Your task to perform on an android device: open app "Booking.com: Hotels and more" (install if not already installed) Image 0: 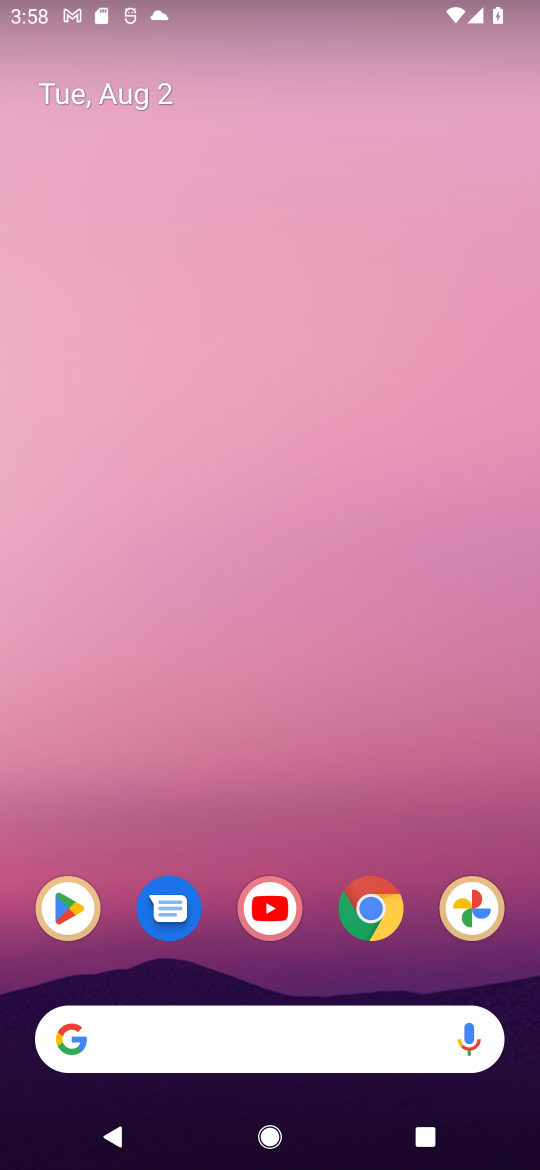
Step 0: press home button
Your task to perform on an android device: open app "Booking.com: Hotels and more" (install if not already installed) Image 1: 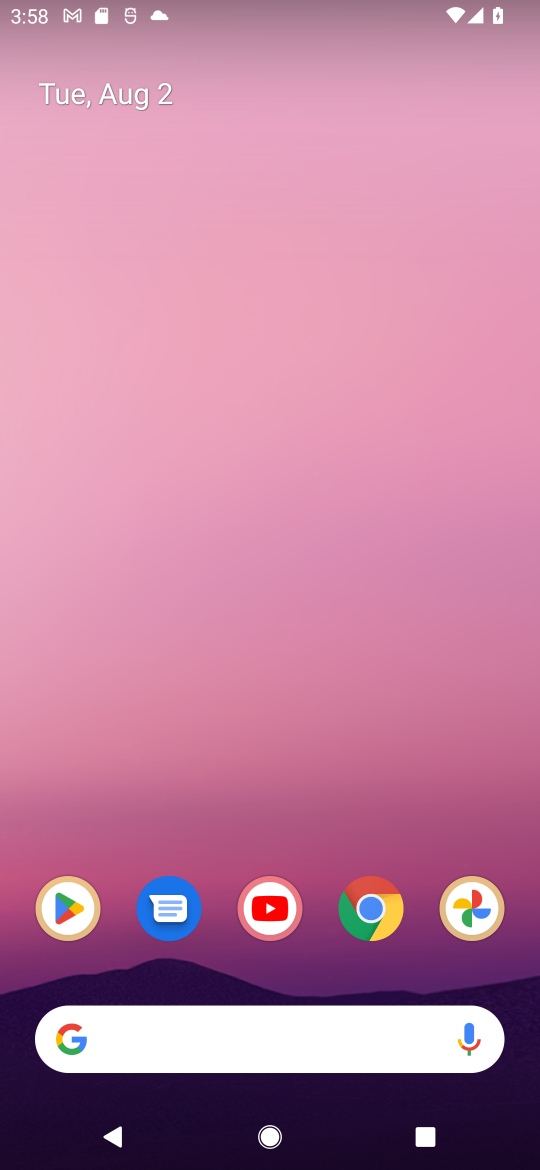
Step 1: click (61, 904)
Your task to perform on an android device: open app "Booking.com: Hotels and more" (install if not already installed) Image 2: 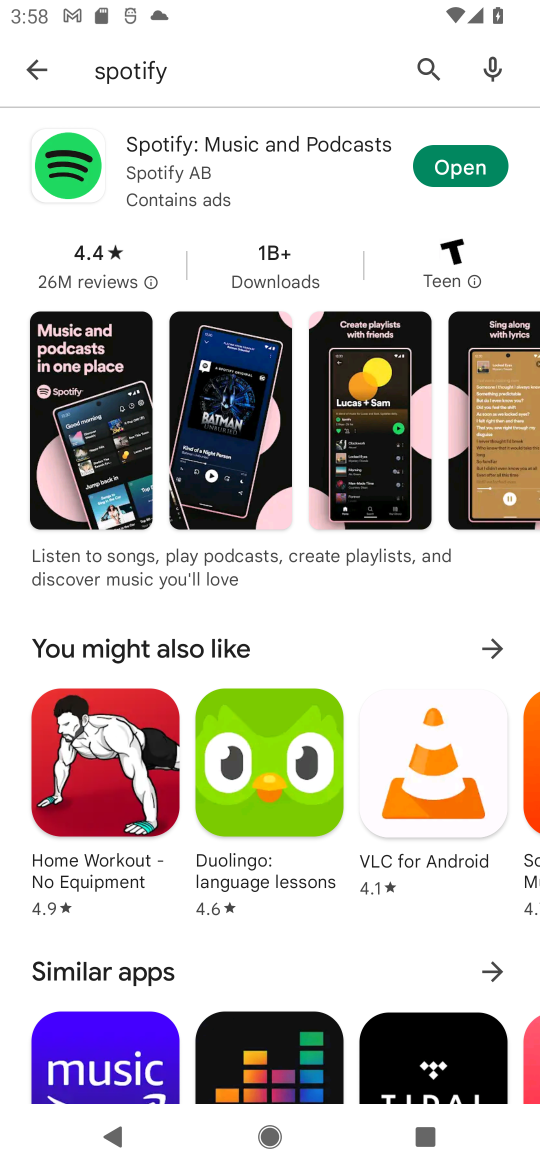
Step 2: click (425, 62)
Your task to perform on an android device: open app "Booking.com: Hotels and more" (install if not already installed) Image 3: 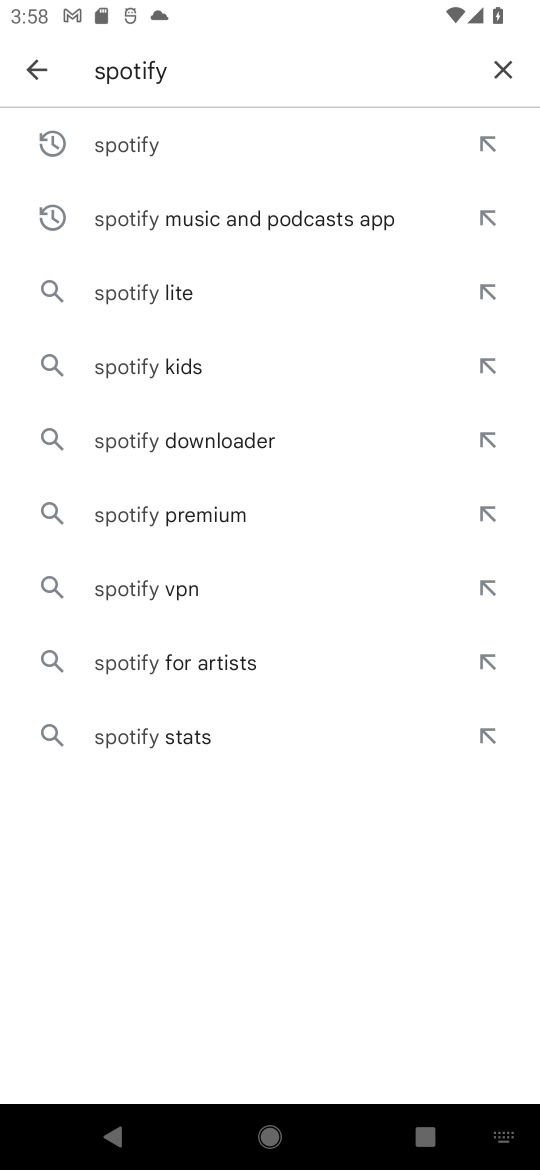
Step 3: click (503, 61)
Your task to perform on an android device: open app "Booking.com: Hotels and more" (install if not already installed) Image 4: 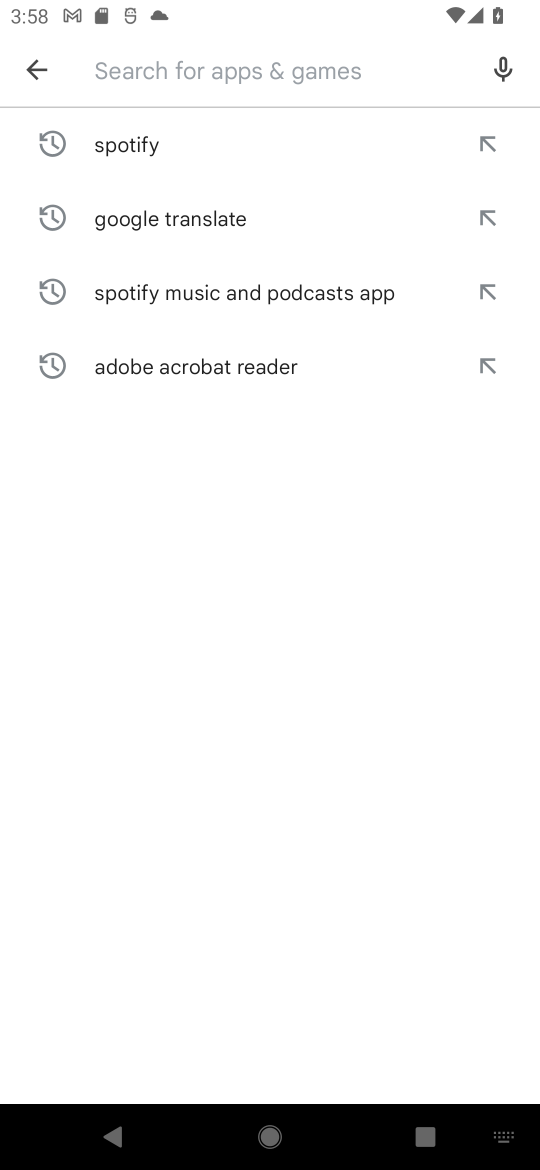
Step 4: type "Booking.com: Hotels and more"
Your task to perform on an android device: open app "Booking.com: Hotels and more" (install if not already installed) Image 5: 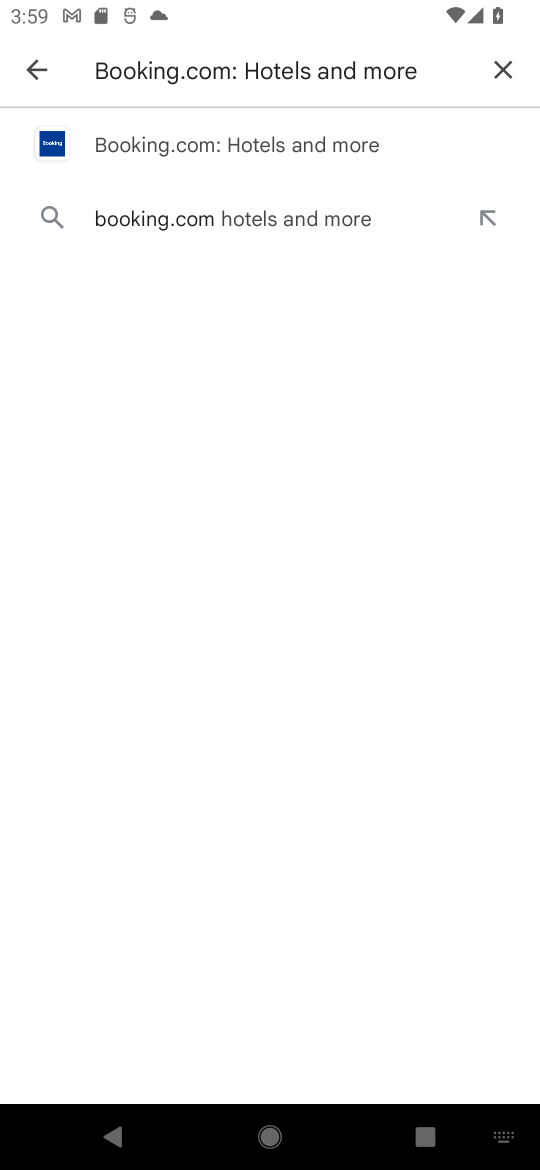
Step 5: click (317, 136)
Your task to perform on an android device: open app "Booking.com: Hotels and more" (install if not already installed) Image 6: 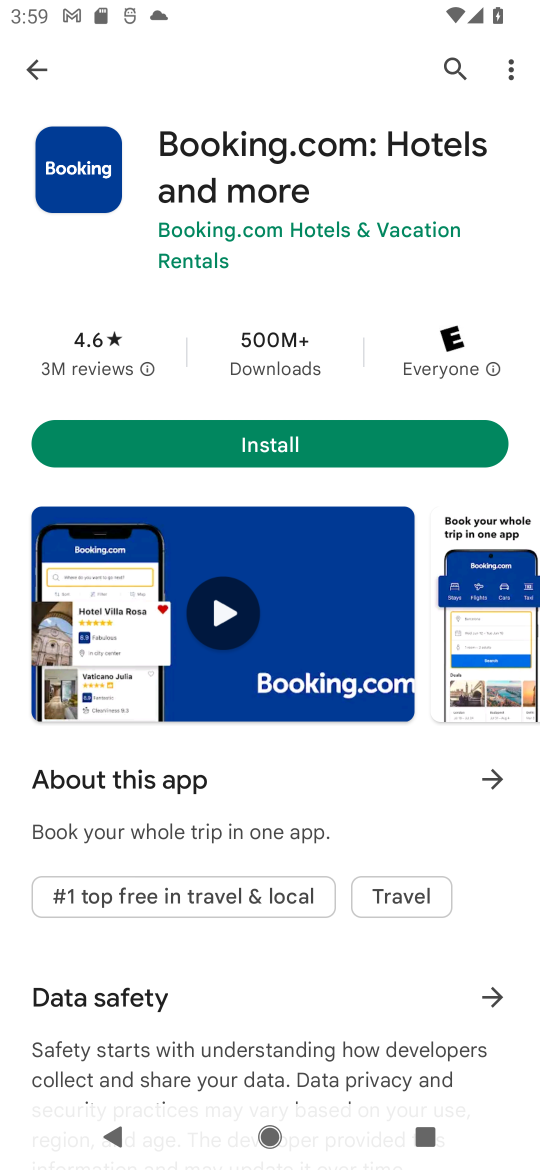
Step 6: click (265, 439)
Your task to perform on an android device: open app "Booking.com: Hotels and more" (install if not already installed) Image 7: 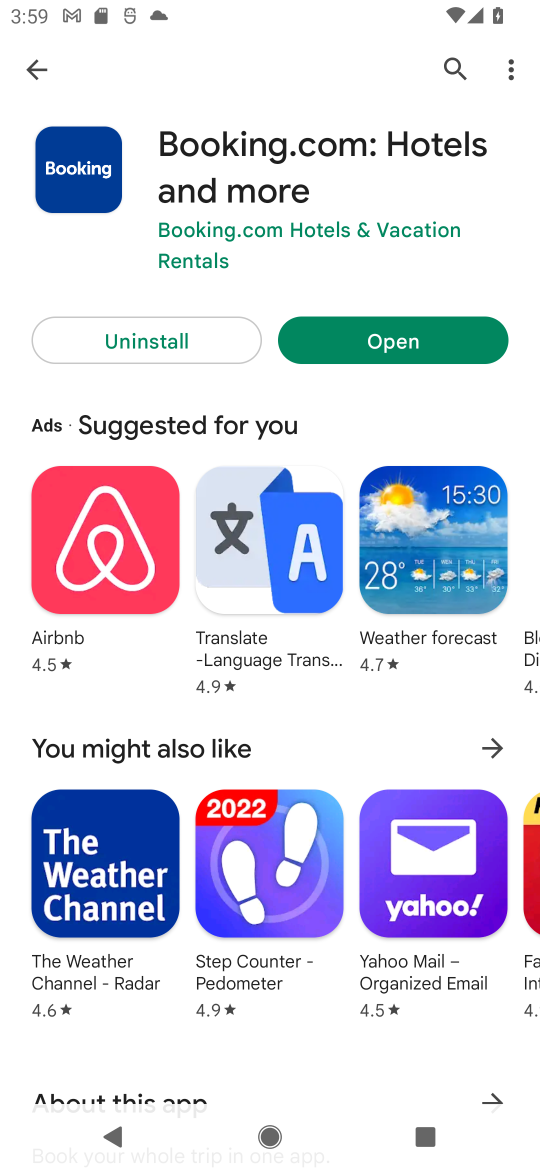
Step 7: click (396, 343)
Your task to perform on an android device: open app "Booking.com: Hotels and more" (install if not already installed) Image 8: 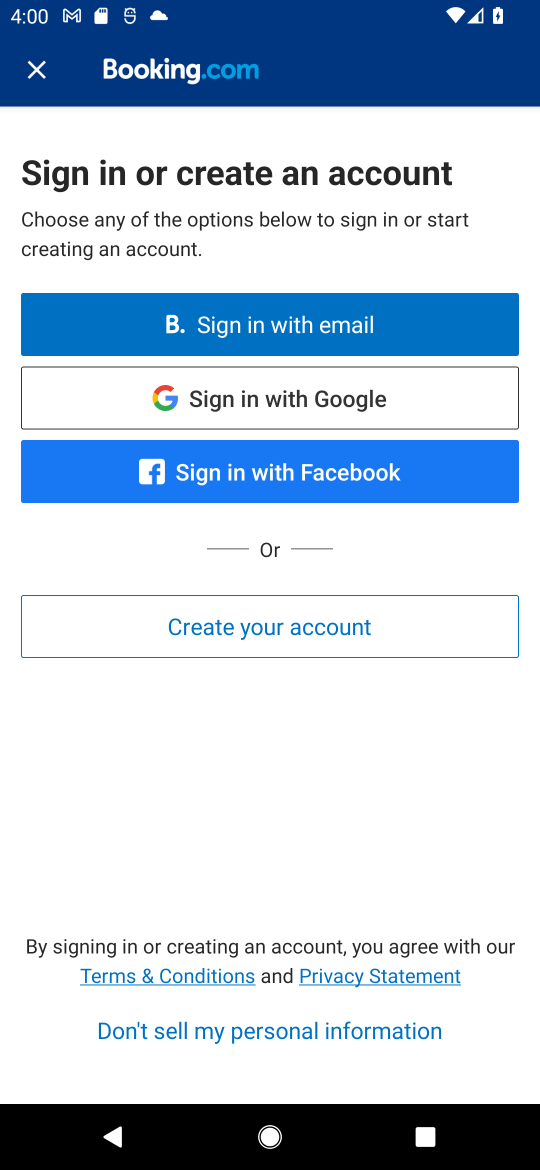
Step 8: click (136, 389)
Your task to perform on an android device: open app "Booking.com: Hotels and more" (install if not already installed) Image 9: 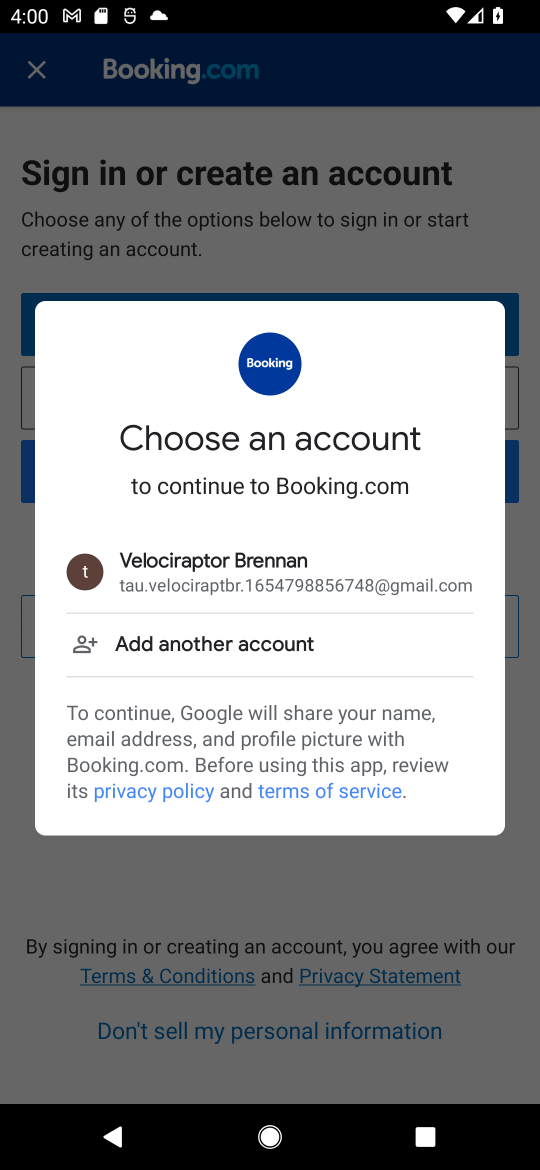
Step 9: click (169, 562)
Your task to perform on an android device: open app "Booking.com: Hotels and more" (install if not already installed) Image 10: 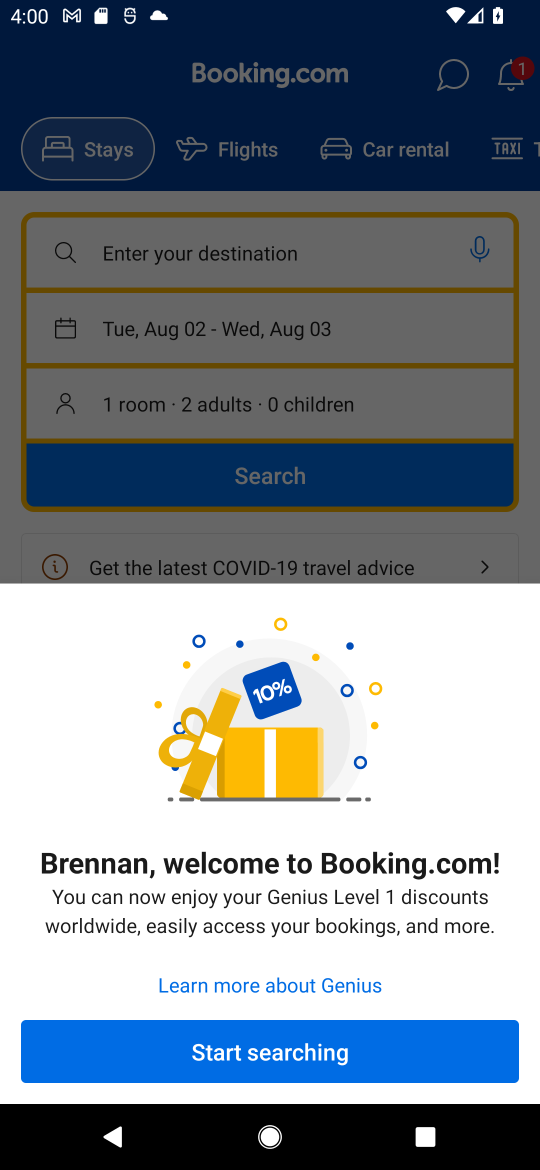
Step 10: click (266, 1048)
Your task to perform on an android device: open app "Booking.com: Hotels and more" (install if not already installed) Image 11: 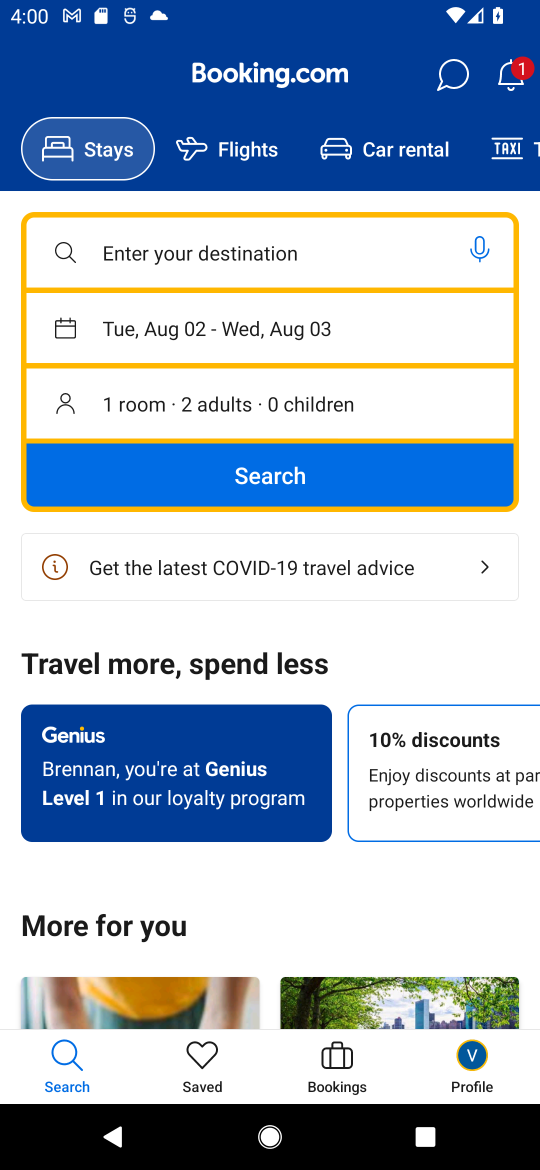
Step 11: task complete